Your task to perform on an android device: Open Google Maps Image 0: 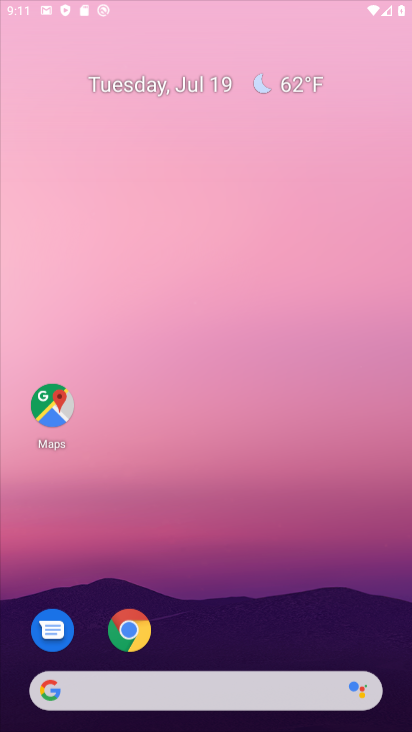
Step 0: click (293, 80)
Your task to perform on an android device: Open Google Maps Image 1: 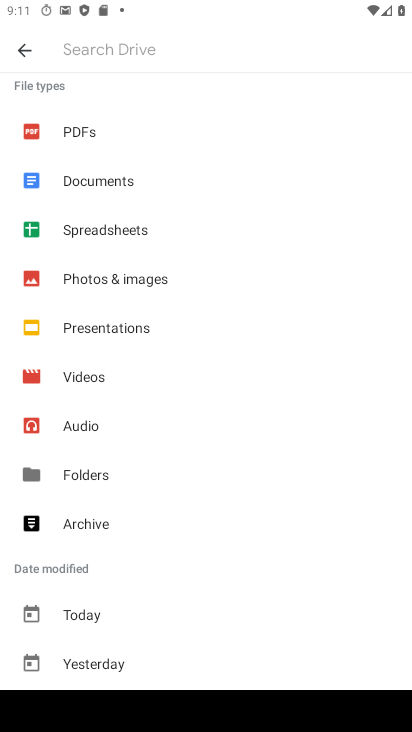
Step 1: press home button
Your task to perform on an android device: Open Google Maps Image 2: 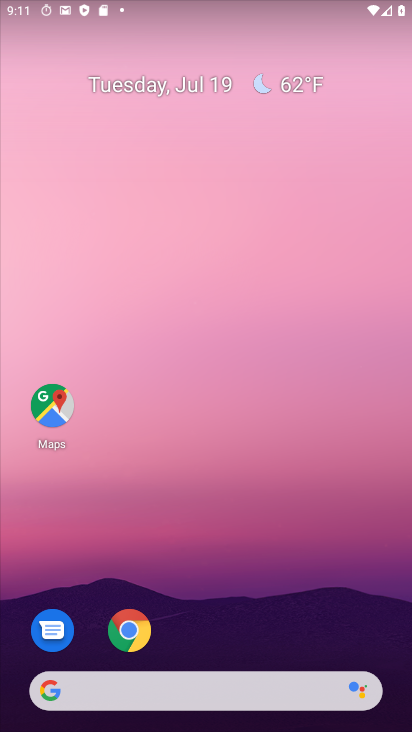
Step 2: click (35, 396)
Your task to perform on an android device: Open Google Maps Image 3: 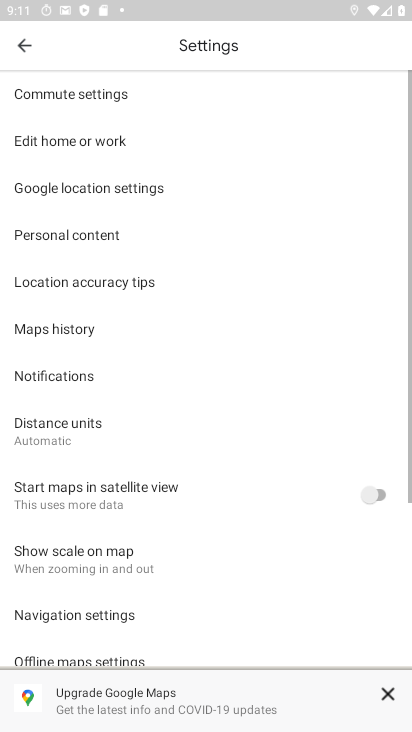
Step 3: click (20, 52)
Your task to perform on an android device: Open Google Maps Image 4: 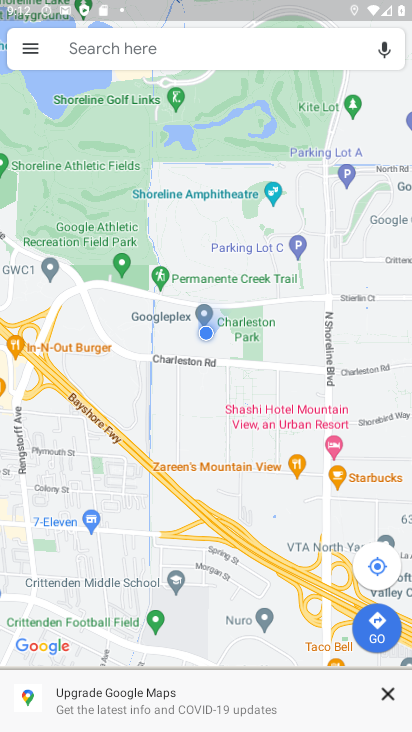
Step 4: click (76, 61)
Your task to perform on an android device: Open Google Maps Image 5: 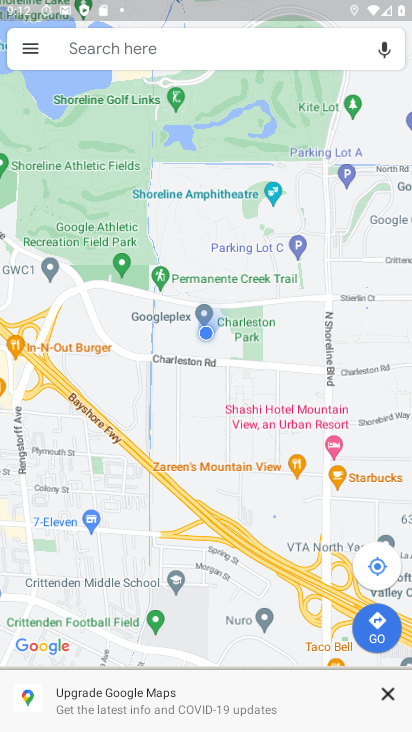
Step 5: click (78, 53)
Your task to perform on an android device: Open Google Maps Image 6: 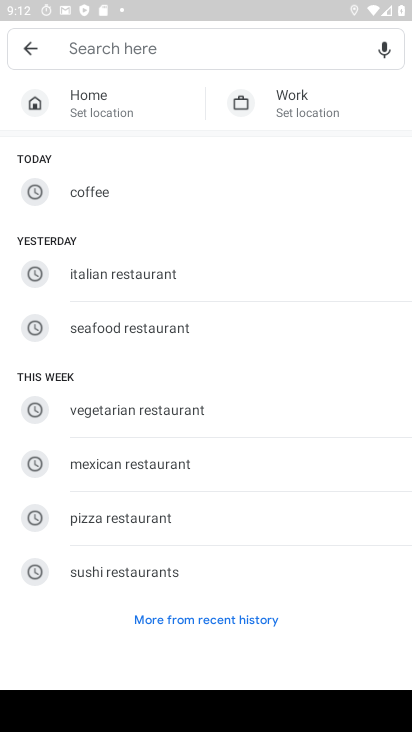
Step 6: click (23, 55)
Your task to perform on an android device: Open Google Maps Image 7: 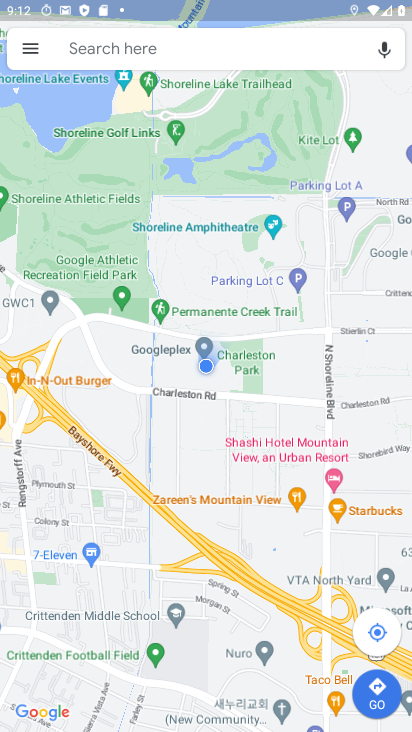
Step 7: task complete